Your task to perform on an android device: Open Chrome and go to settings Image 0: 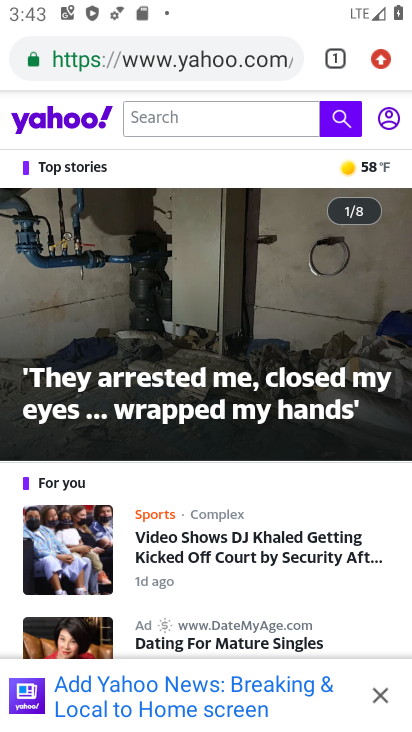
Step 0: drag from (403, 51) to (194, 621)
Your task to perform on an android device: Open Chrome and go to settings Image 1: 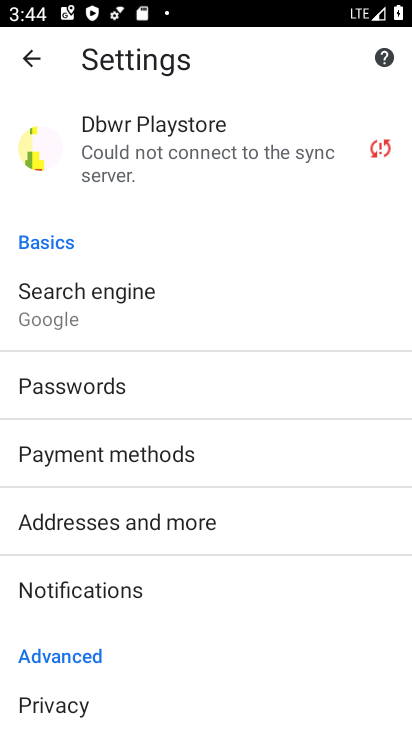
Step 1: task complete